Your task to perform on an android device: delete the emails in spam in the gmail app Image 0: 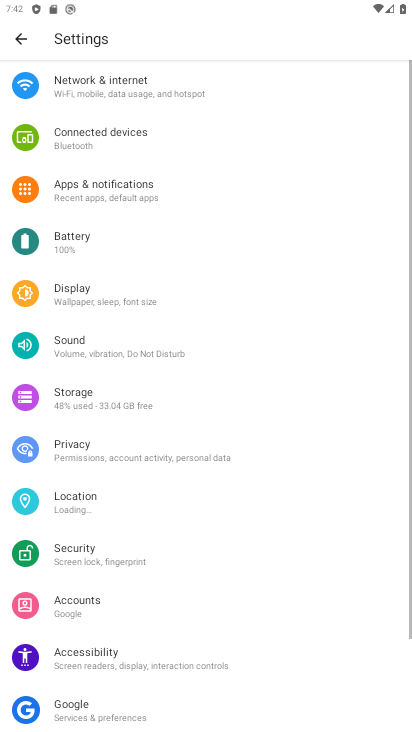
Step 0: press home button
Your task to perform on an android device: delete the emails in spam in the gmail app Image 1: 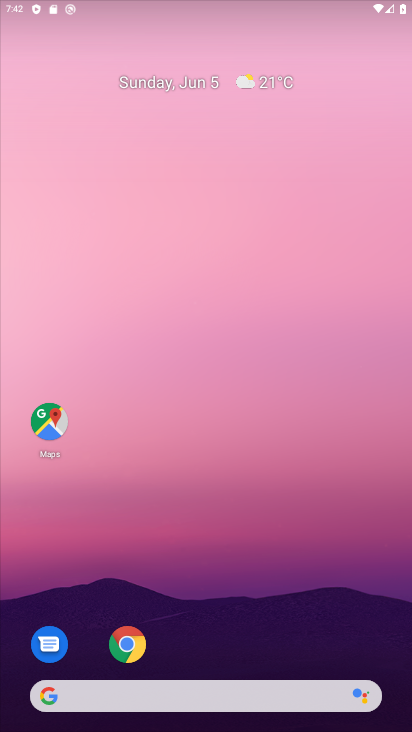
Step 1: drag from (261, 605) to (303, 3)
Your task to perform on an android device: delete the emails in spam in the gmail app Image 2: 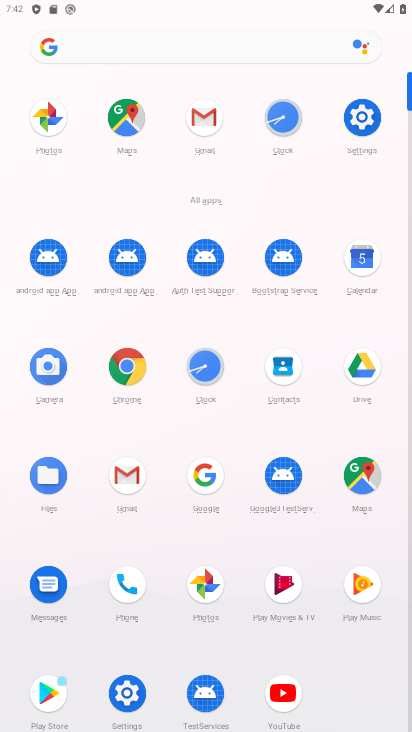
Step 2: click (131, 478)
Your task to perform on an android device: delete the emails in spam in the gmail app Image 3: 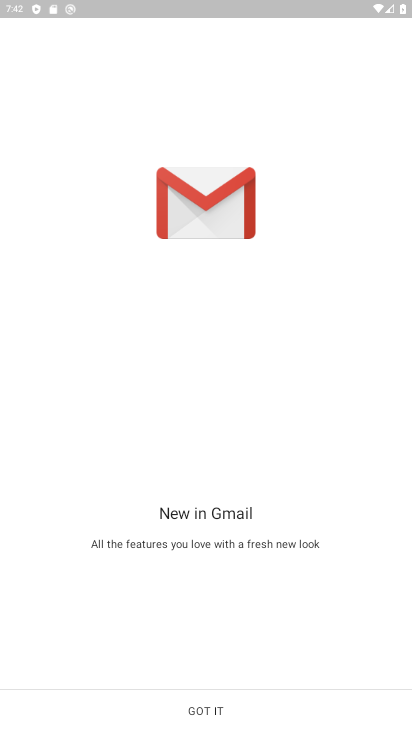
Step 3: click (153, 728)
Your task to perform on an android device: delete the emails in spam in the gmail app Image 4: 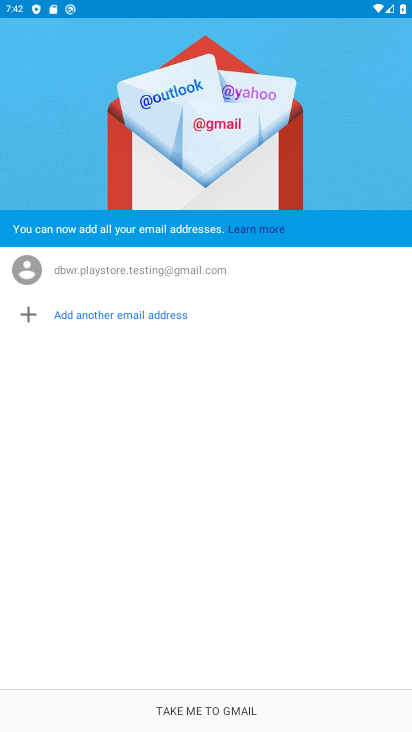
Step 4: click (228, 702)
Your task to perform on an android device: delete the emails in spam in the gmail app Image 5: 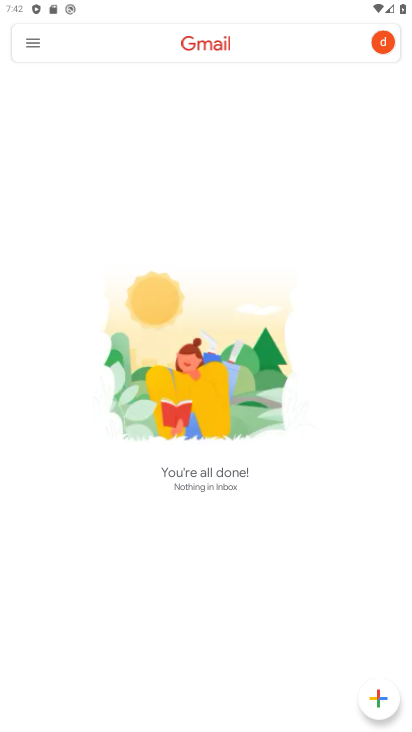
Step 5: click (34, 43)
Your task to perform on an android device: delete the emails in spam in the gmail app Image 6: 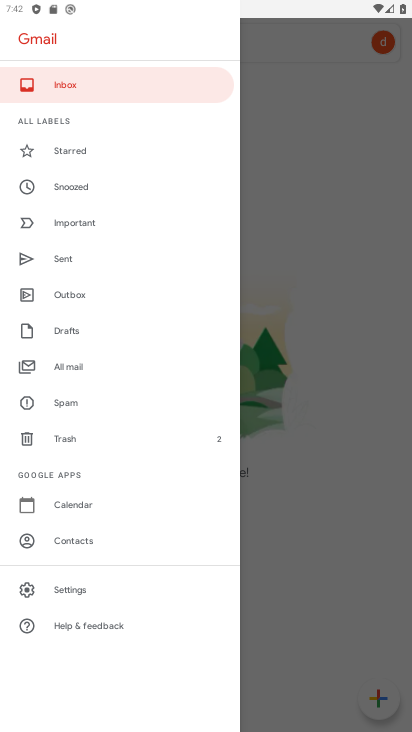
Step 6: click (55, 405)
Your task to perform on an android device: delete the emails in spam in the gmail app Image 7: 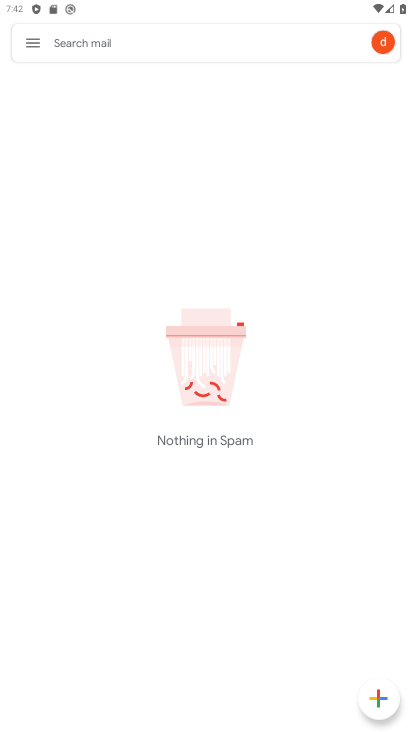
Step 7: task complete